Your task to perform on an android device: turn off priority inbox in the gmail app Image 0: 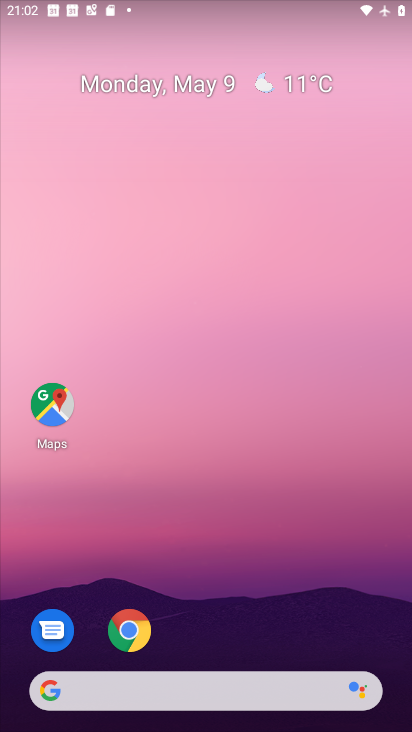
Step 0: drag from (157, 590) to (168, 202)
Your task to perform on an android device: turn off priority inbox in the gmail app Image 1: 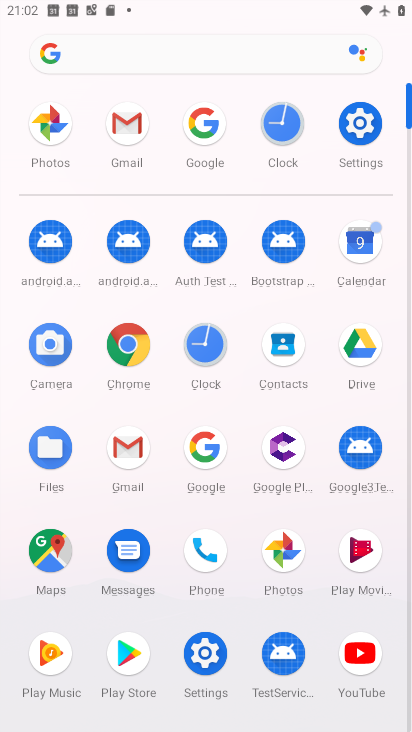
Step 1: click (112, 135)
Your task to perform on an android device: turn off priority inbox in the gmail app Image 2: 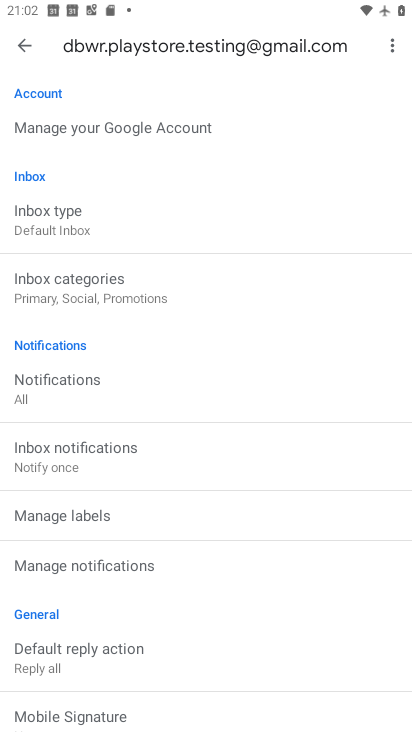
Step 2: click (117, 222)
Your task to perform on an android device: turn off priority inbox in the gmail app Image 3: 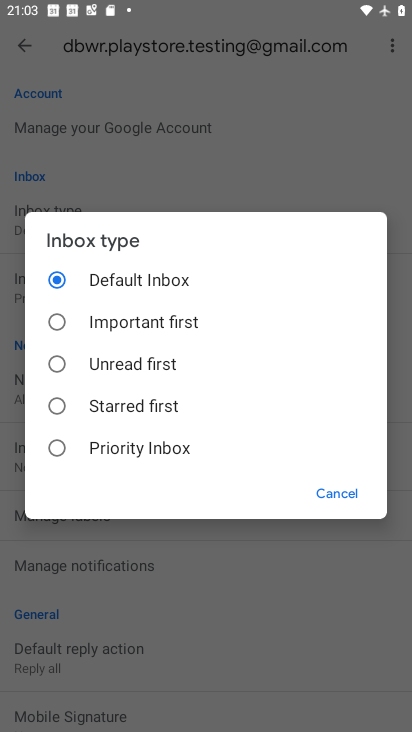
Step 3: task complete